Your task to perform on an android device: toggle airplane mode Image 0: 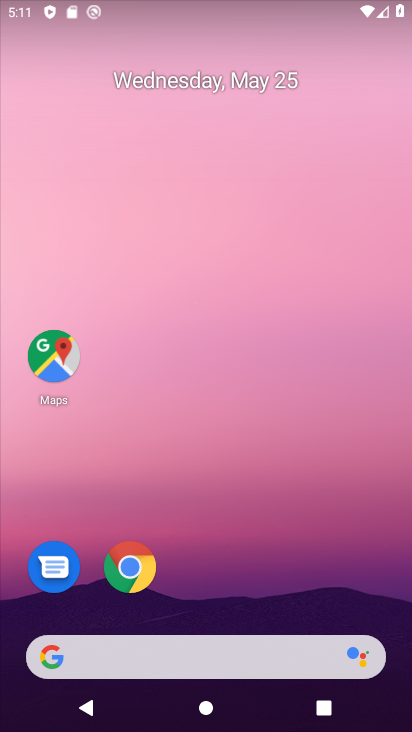
Step 0: drag from (229, 500) to (226, 59)
Your task to perform on an android device: toggle airplane mode Image 1: 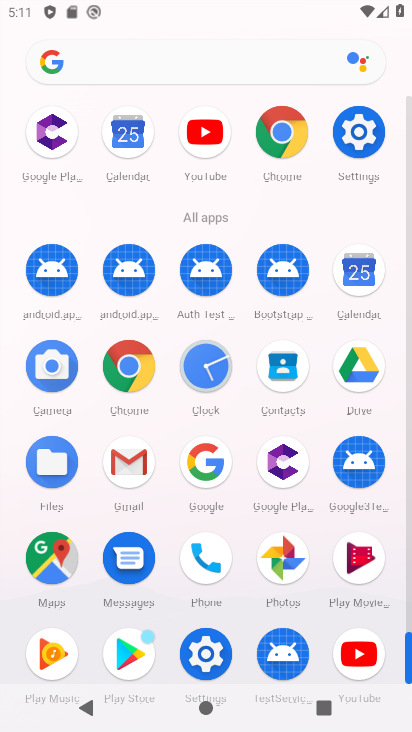
Step 1: drag from (6, 555) to (3, 208)
Your task to perform on an android device: toggle airplane mode Image 2: 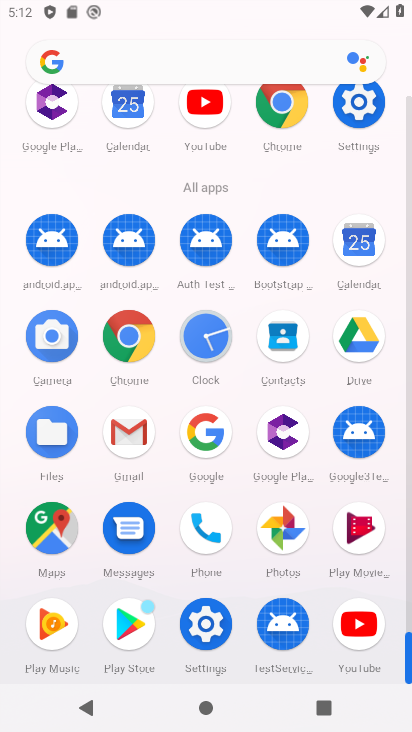
Step 2: click (201, 619)
Your task to perform on an android device: toggle airplane mode Image 3: 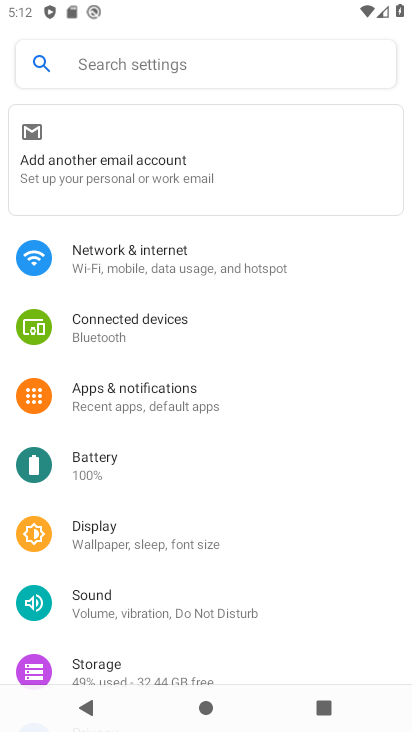
Step 3: drag from (270, 557) to (280, 393)
Your task to perform on an android device: toggle airplane mode Image 4: 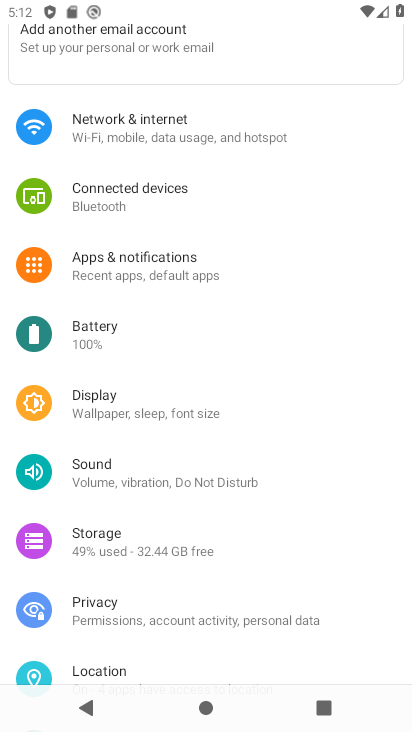
Step 4: click (198, 135)
Your task to perform on an android device: toggle airplane mode Image 5: 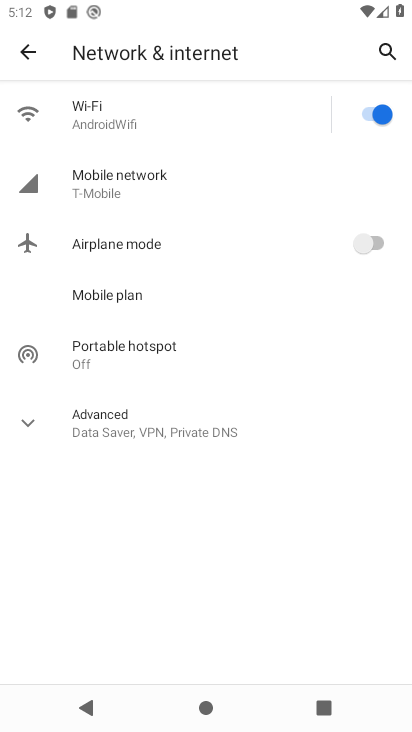
Step 5: click (49, 415)
Your task to perform on an android device: toggle airplane mode Image 6: 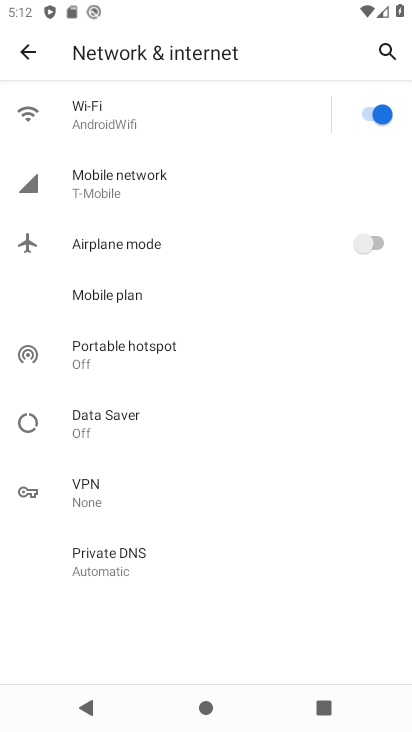
Step 6: click (371, 243)
Your task to perform on an android device: toggle airplane mode Image 7: 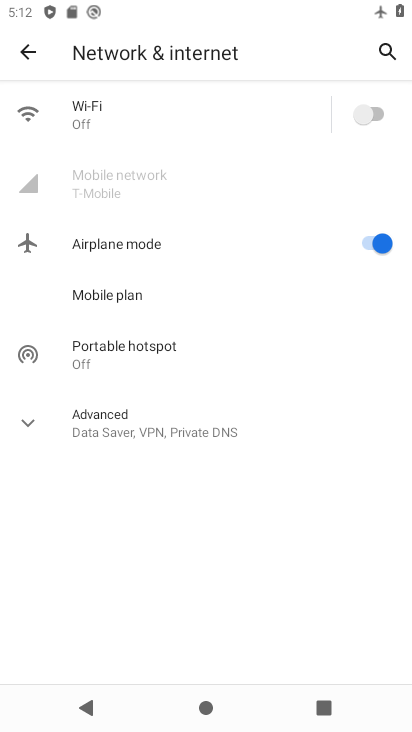
Step 7: task complete